Your task to perform on an android device: turn notification dots on Image 0: 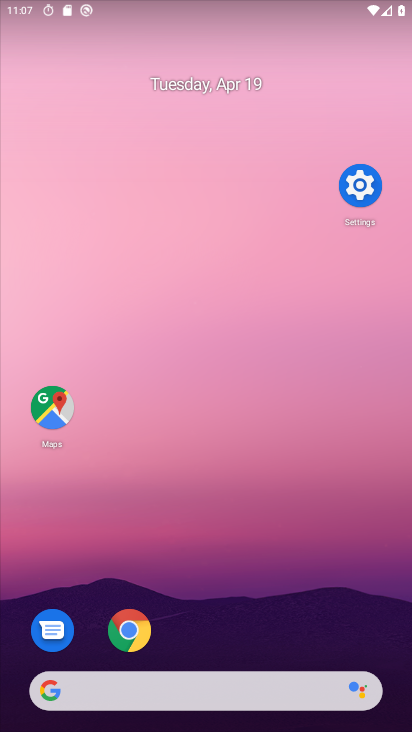
Step 0: drag from (282, 259) to (290, 135)
Your task to perform on an android device: turn notification dots on Image 1: 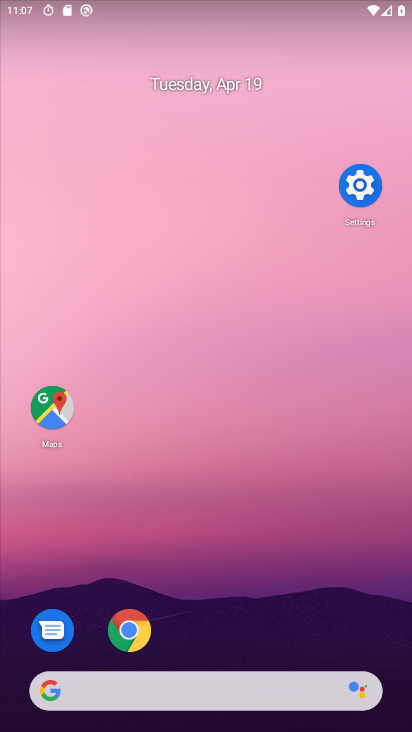
Step 1: drag from (225, 659) to (307, 221)
Your task to perform on an android device: turn notification dots on Image 2: 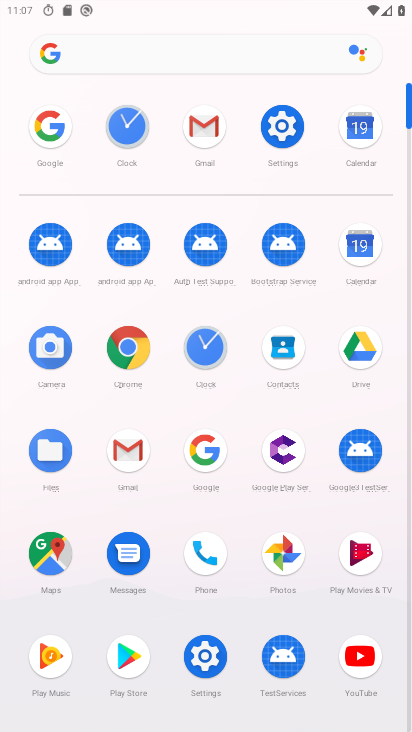
Step 2: click (283, 141)
Your task to perform on an android device: turn notification dots on Image 3: 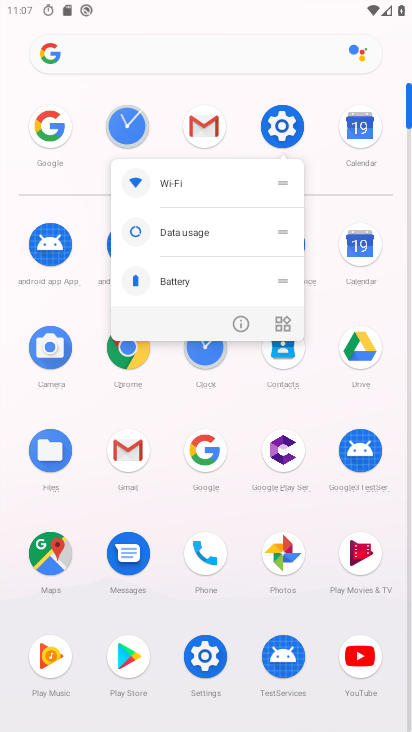
Step 3: click (284, 138)
Your task to perform on an android device: turn notification dots on Image 4: 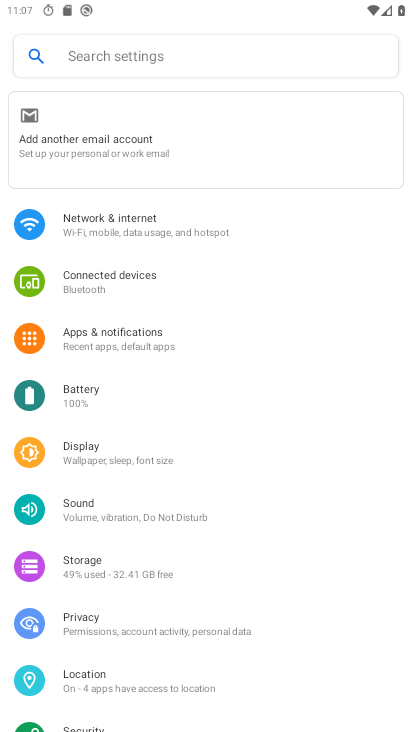
Step 4: click (152, 341)
Your task to perform on an android device: turn notification dots on Image 5: 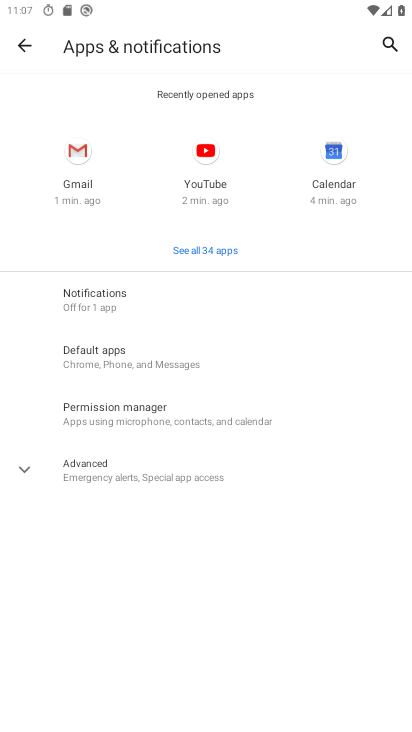
Step 5: click (156, 327)
Your task to perform on an android device: turn notification dots on Image 6: 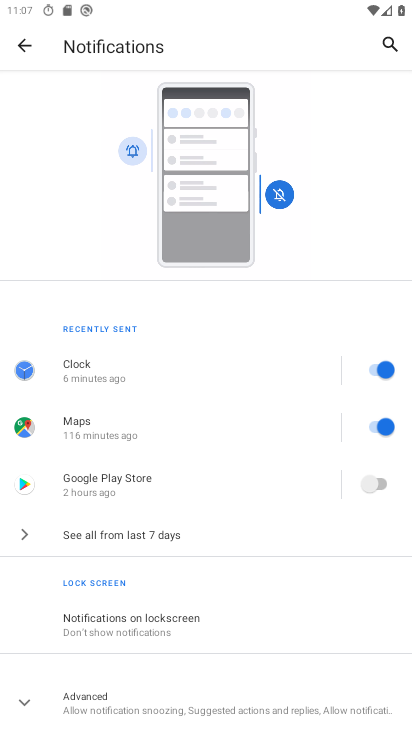
Step 6: drag from (163, 471) to (217, 250)
Your task to perform on an android device: turn notification dots on Image 7: 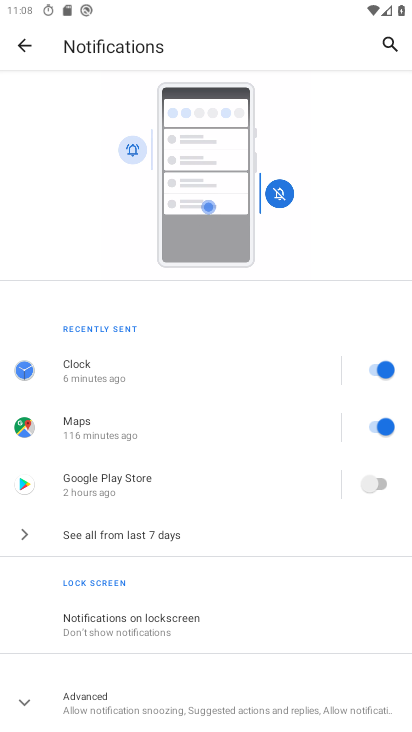
Step 7: click (188, 702)
Your task to perform on an android device: turn notification dots on Image 8: 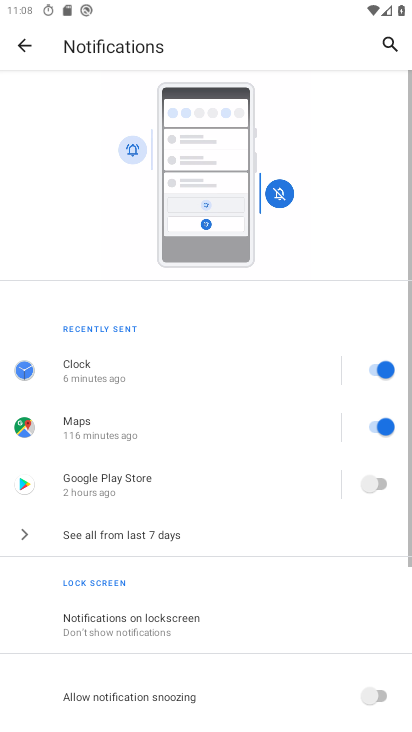
Step 8: task complete